Your task to perform on an android device: refresh tabs in the chrome app Image 0: 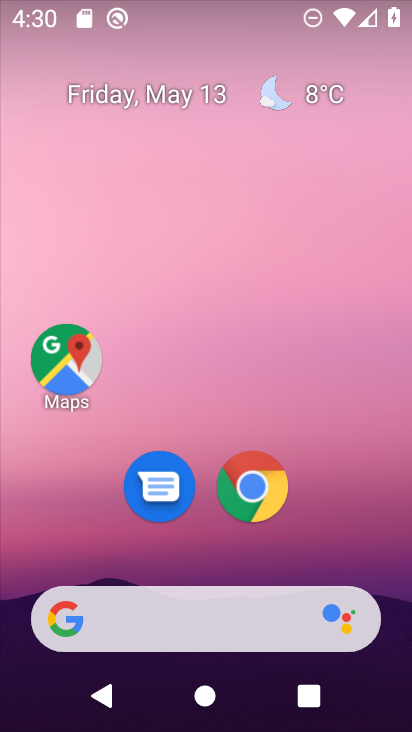
Step 0: click (255, 491)
Your task to perform on an android device: refresh tabs in the chrome app Image 1: 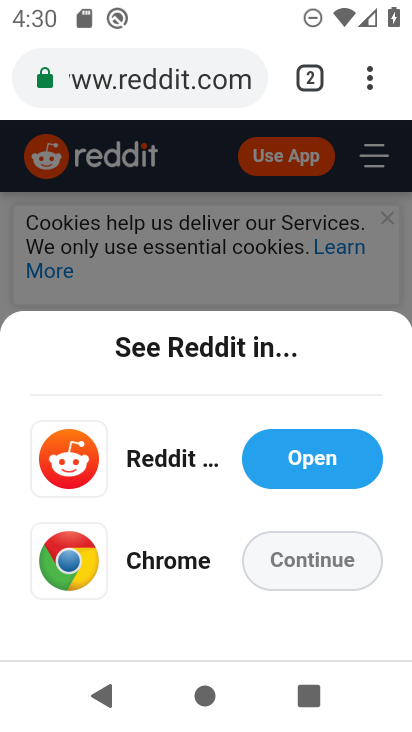
Step 1: click (305, 557)
Your task to perform on an android device: refresh tabs in the chrome app Image 2: 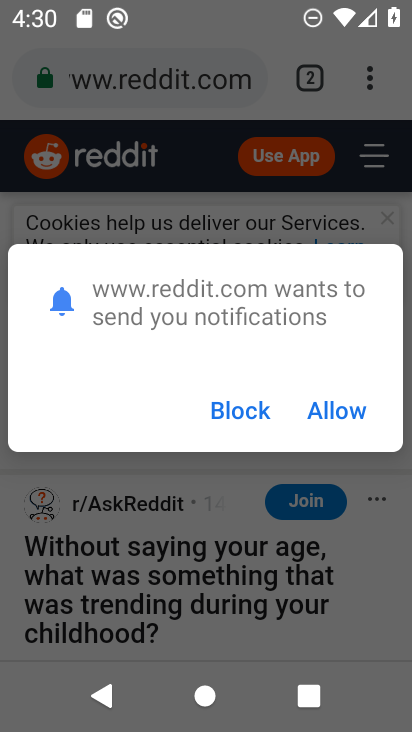
Step 2: click (318, 429)
Your task to perform on an android device: refresh tabs in the chrome app Image 3: 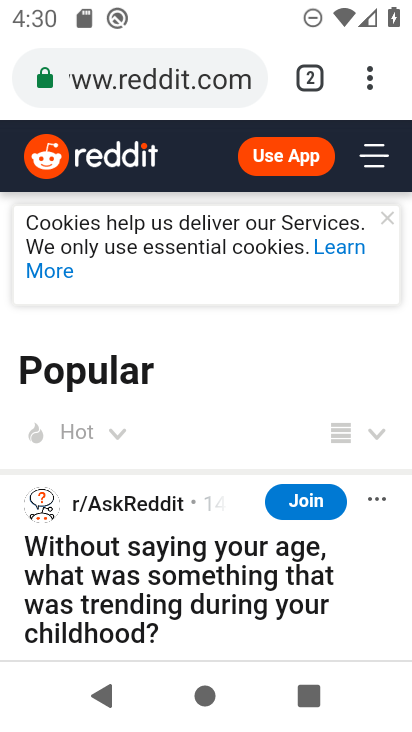
Step 3: click (369, 96)
Your task to perform on an android device: refresh tabs in the chrome app Image 4: 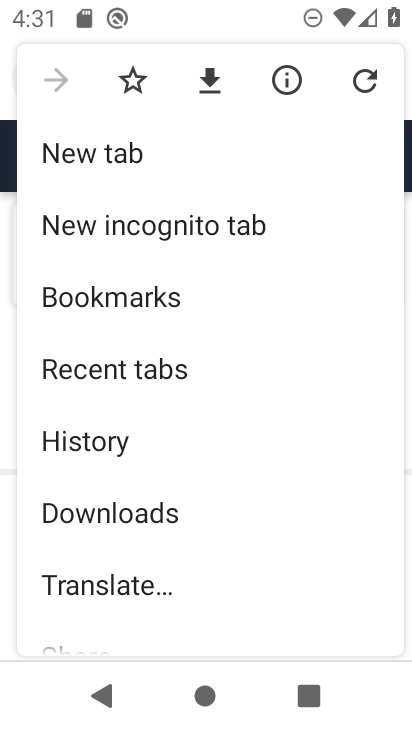
Step 4: click (357, 84)
Your task to perform on an android device: refresh tabs in the chrome app Image 5: 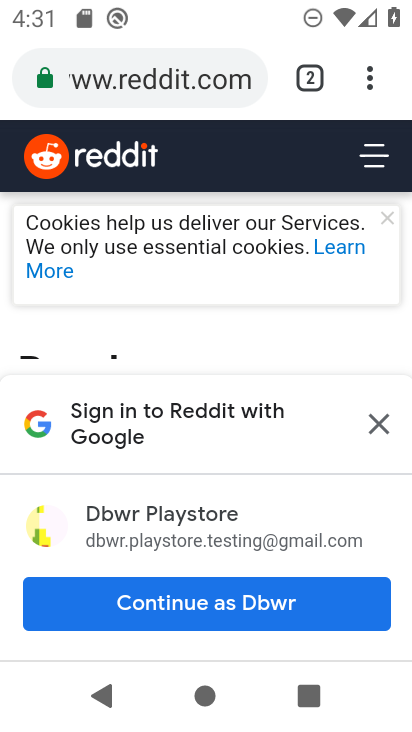
Step 5: task complete